Your task to perform on an android device: Open settings on Google Maps Image 0: 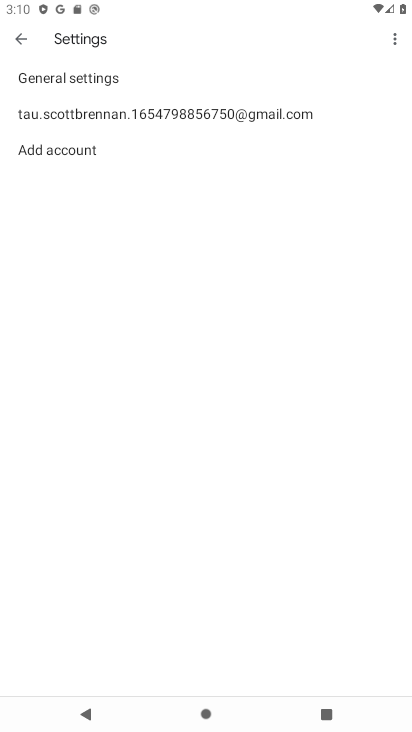
Step 0: task complete